Your task to perform on an android device: Open Google Chrome and open the bookmarks view Image 0: 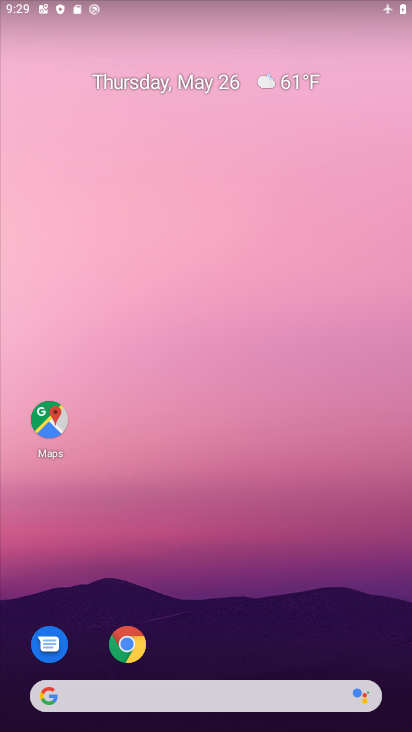
Step 0: drag from (226, 633) to (113, 70)
Your task to perform on an android device: Open Google Chrome and open the bookmarks view Image 1: 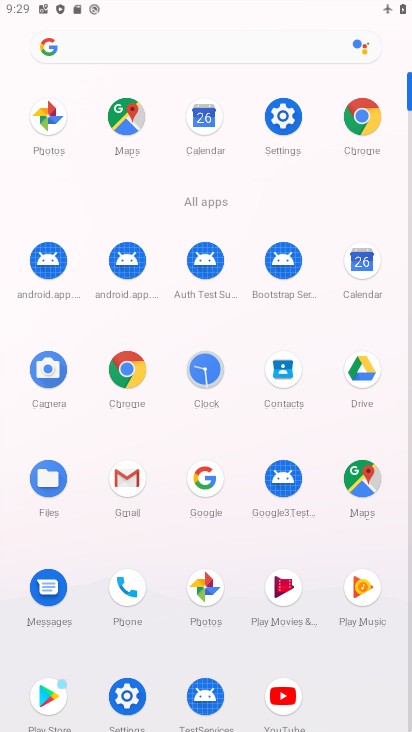
Step 1: click (132, 362)
Your task to perform on an android device: Open Google Chrome and open the bookmarks view Image 2: 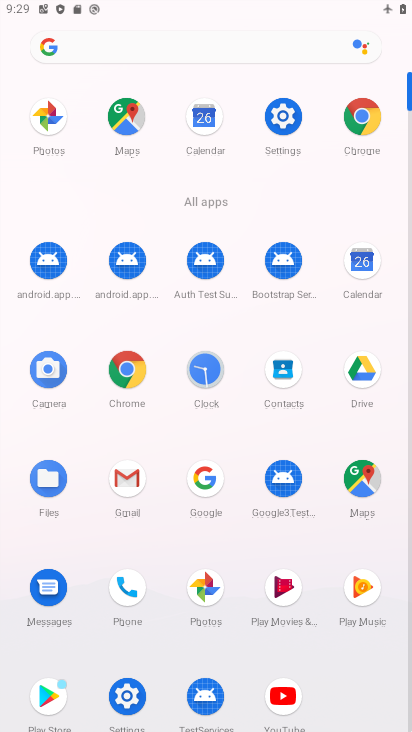
Step 2: click (134, 361)
Your task to perform on an android device: Open Google Chrome and open the bookmarks view Image 3: 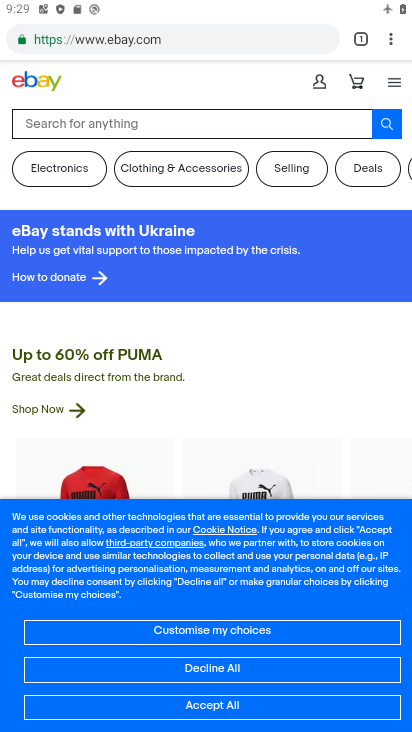
Step 3: drag from (393, 38) to (256, 150)
Your task to perform on an android device: Open Google Chrome and open the bookmarks view Image 4: 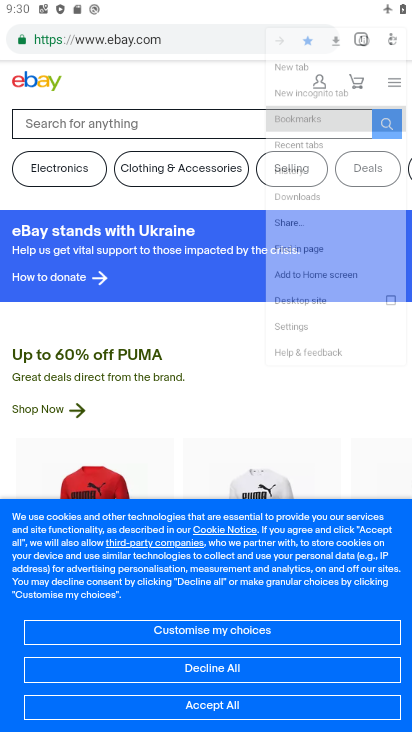
Step 4: click (256, 150)
Your task to perform on an android device: Open Google Chrome and open the bookmarks view Image 5: 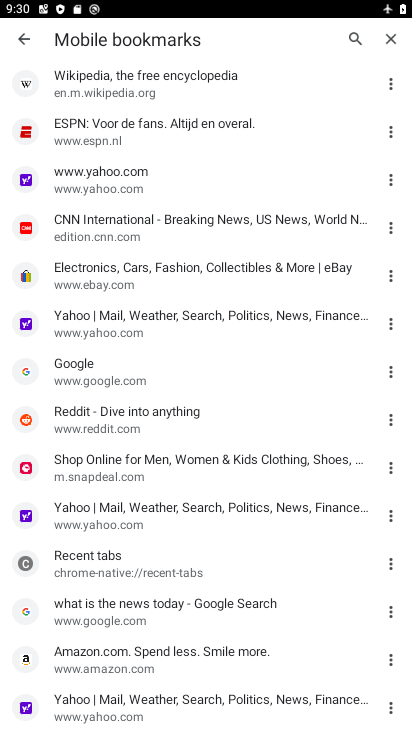
Step 5: task complete